Your task to perform on an android device: create a new album in the google photos Image 0: 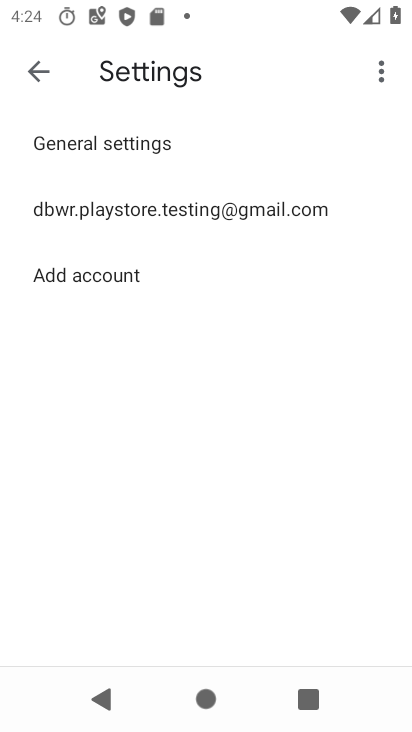
Step 0: press home button
Your task to perform on an android device: create a new album in the google photos Image 1: 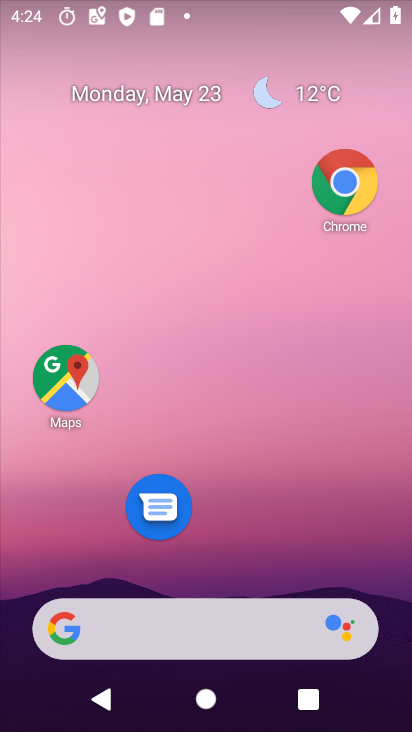
Step 1: drag from (197, 602) to (270, 98)
Your task to perform on an android device: create a new album in the google photos Image 2: 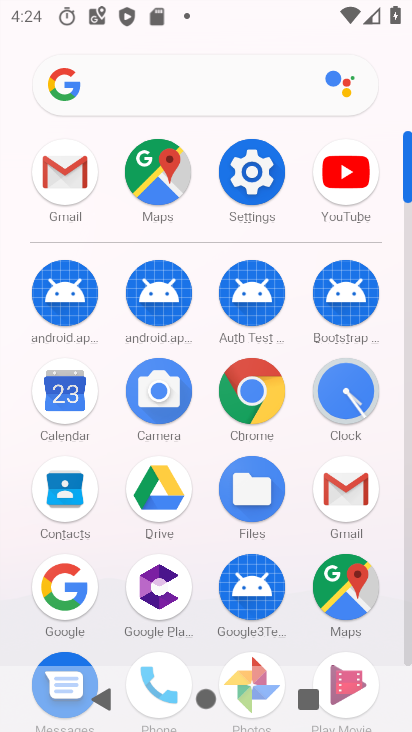
Step 2: click (241, 658)
Your task to perform on an android device: create a new album in the google photos Image 3: 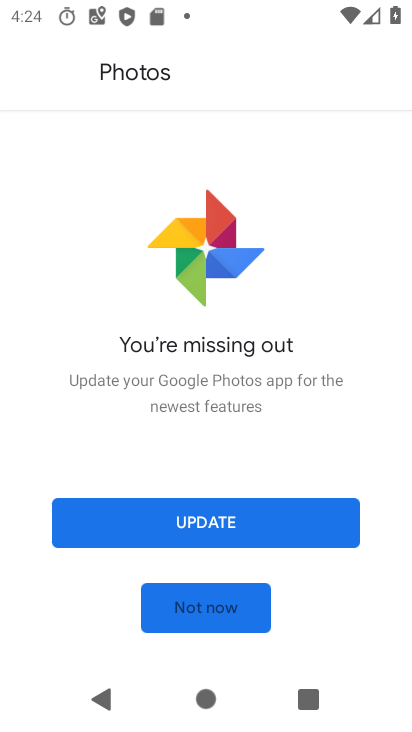
Step 3: click (224, 619)
Your task to perform on an android device: create a new album in the google photos Image 4: 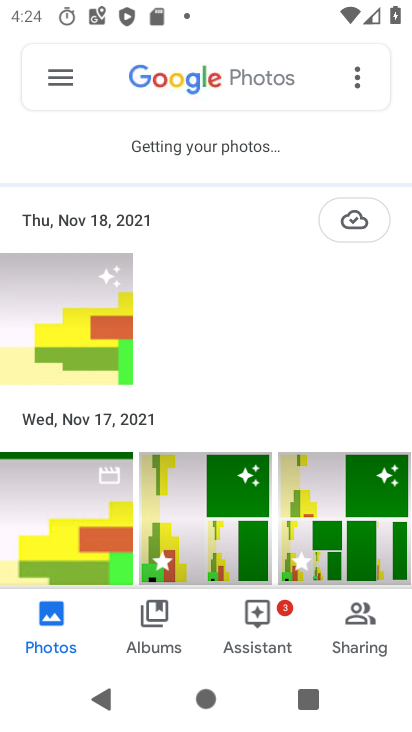
Step 4: click (119, 406)
Your task to perform on an android device: create a new album in the google photos Image 5: 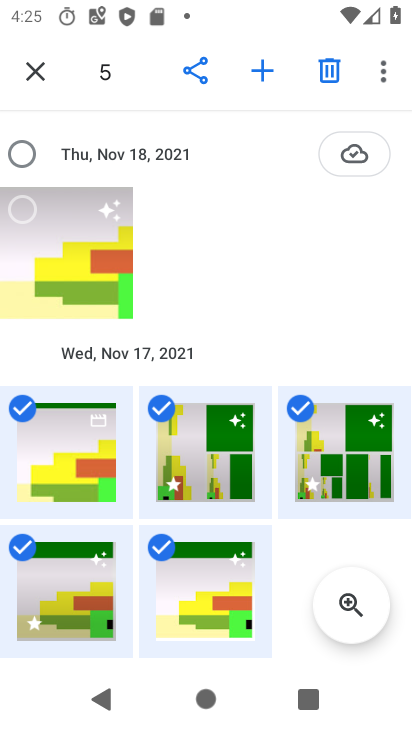
Step 5: click (246, 70)
Your task to perform on an android device: create a new album in the google photos Image 6: 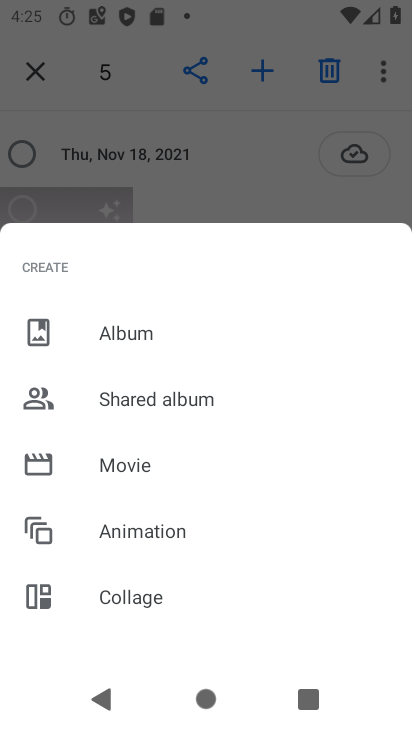
Step 6: click (165, 350)
Your task to perform on an android device: create a new album in the google photos Image 7: 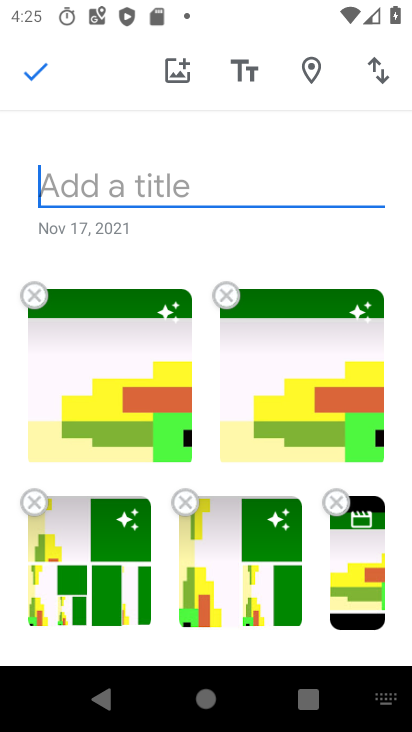
Step 7: type "zibran"
Your task to perform on an android device: create a new album in the google photos Image 8: 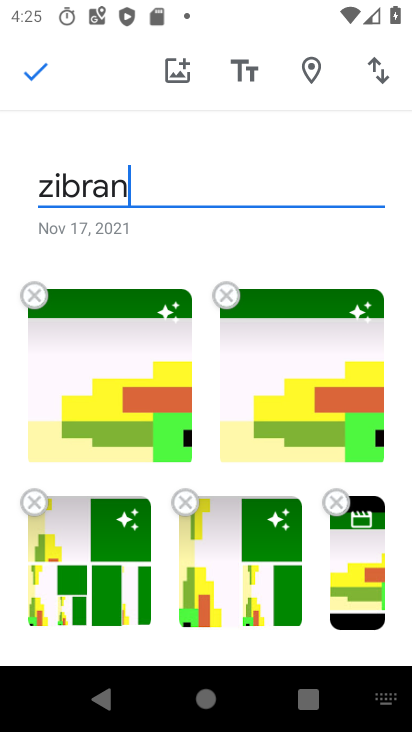
Step 8: click (49, 78)
Your task to perform on an android device: create a new album in the google photos Image 9: 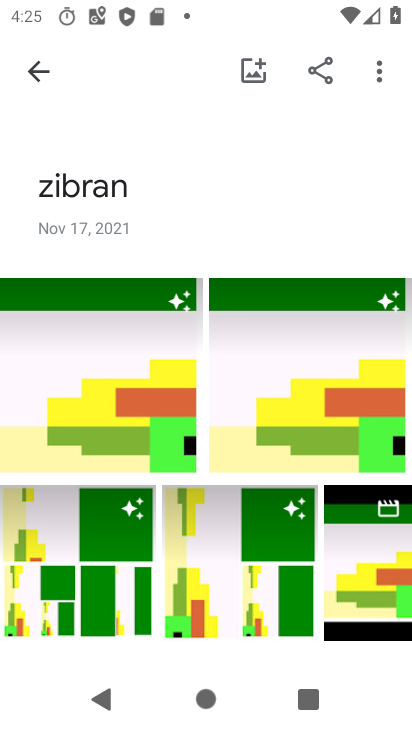
Step 9: task complete